Your task to perform on an android device: turn on sleep mode Image 0: 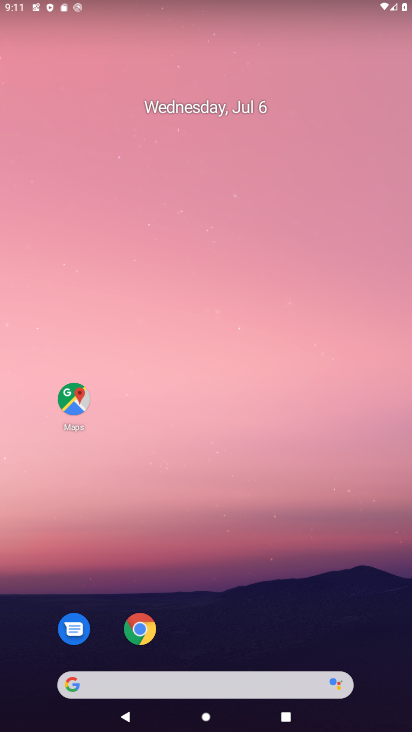
Step 0: drag from (216, 622) to (181, 161)
Your task to perform on an android device: turn on sleep mode Image 1: 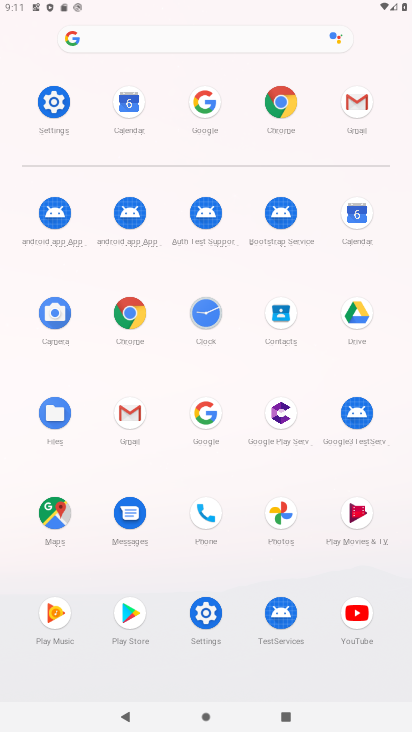
Step 1: click (55, 106)
Your task to perform on an android device: turn on sleep mode Image 2: 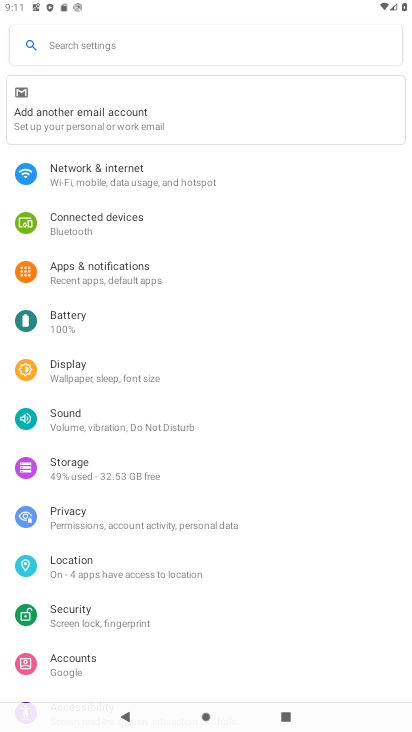
Step 2: click (91, 384)
Your task to perform on an android device: turn on sleep mode Image 3: 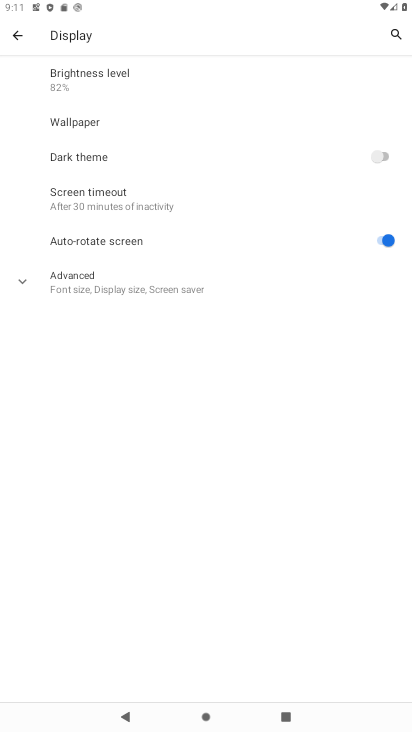
Step 3: click (103, 188)
Your task to perform on an android device: turn on sleep mode Image 4: 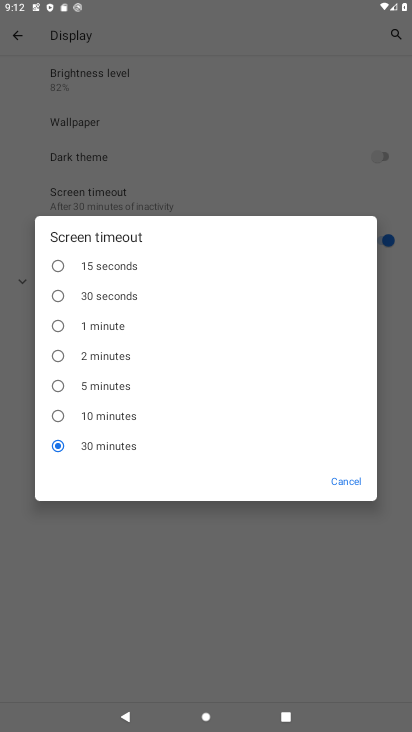
Step 4: task complete